Your task to perform on an android device: change notification settings in the gmail app Image 0: 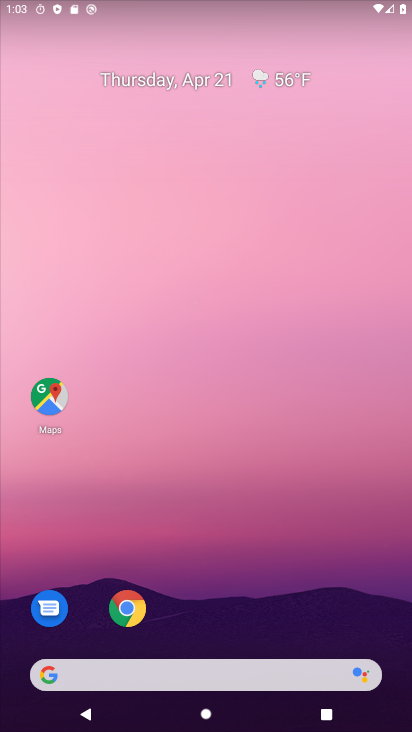
Step 0: drag from (252, 529) to (236, 48)
Your task to perform on an android device: change notification settings in the gmail app Image 1: 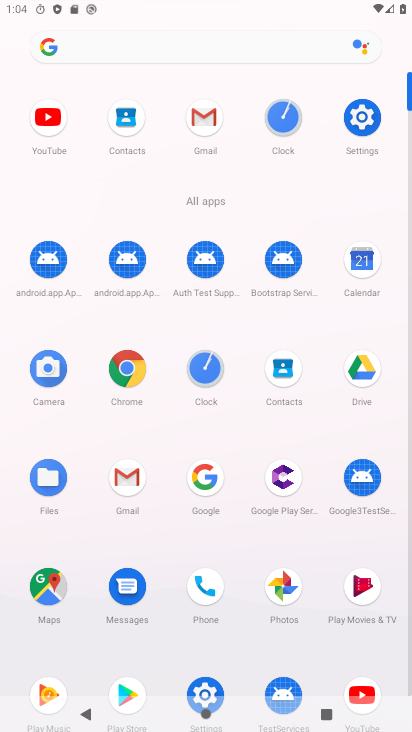
Step 1: click (129, 479)
Your task to perform on an android device: change notification settings in the gmail app Image 2: 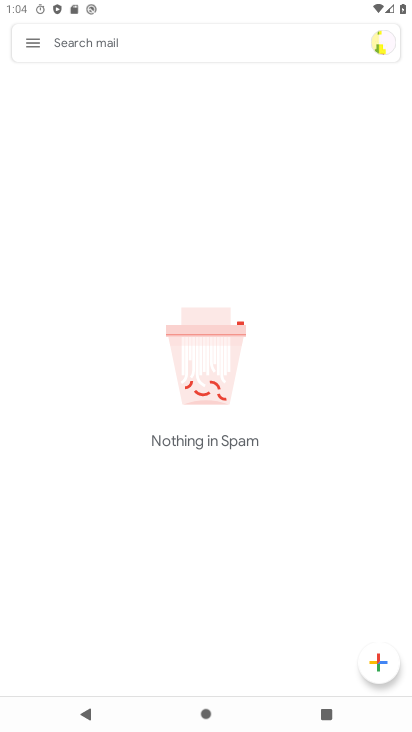
Step 2: click (35, 41)
Your task to perform on an android device: change notification settings in the gmail app Image 3: 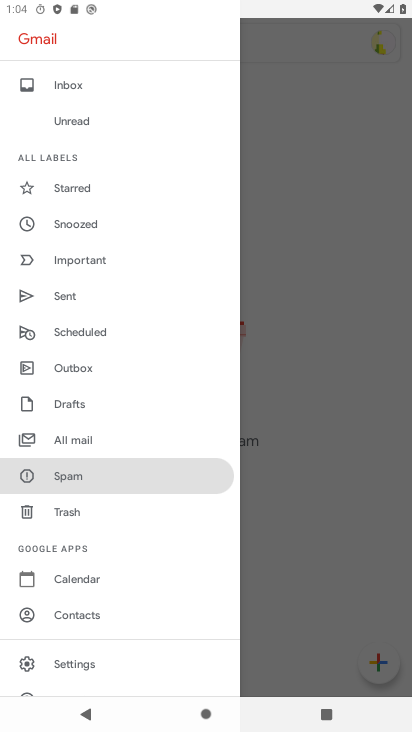
Step 3: click (99, 660)
Your task to perform on an android device: change notification settings in the gmail app Image 4: 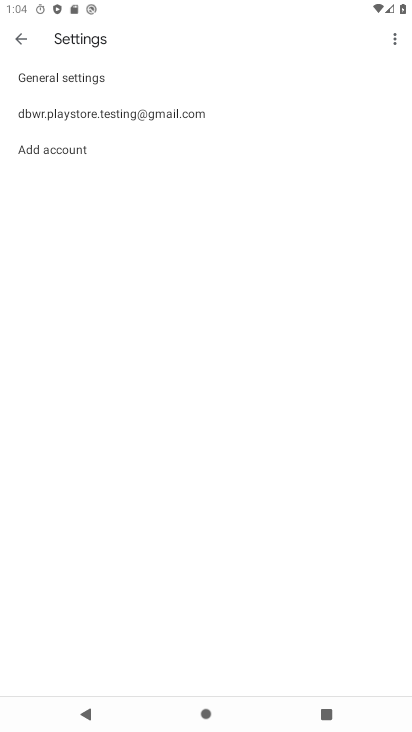
Step 4: click (98, 74)
Your task to perform on an android device: change notification settings in the gmail app Image 5: 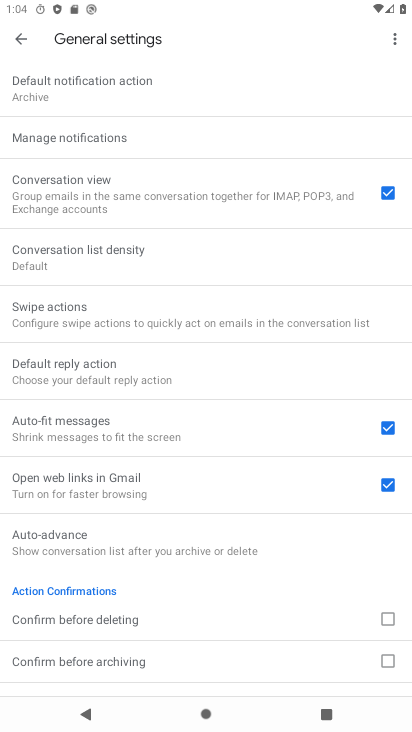
Step 5: click (113, 129)
Your task to perform on an android device: change notification settings in the gmail app Image 6: 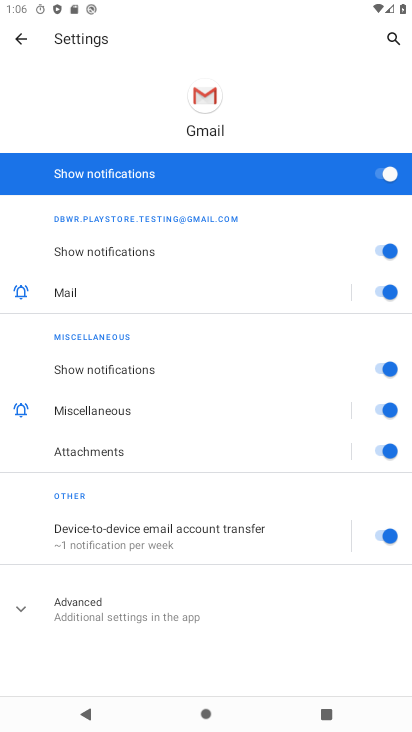
Step 6: click (382, 287)
Your task to perform on an android device: change notification settings in the gmail app Image 7: 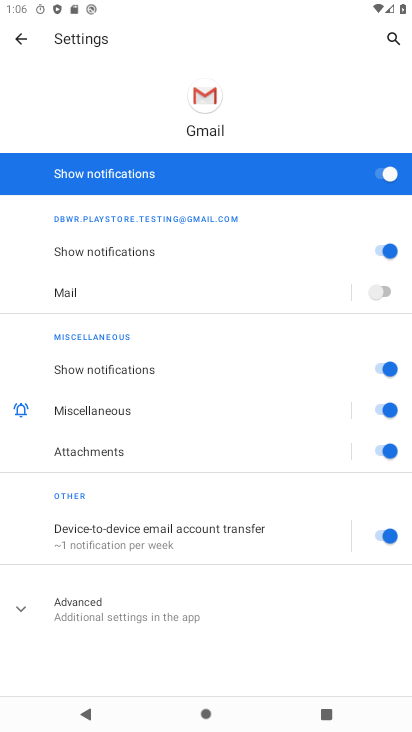
Step 7: task complete